Your task to perform on an android device: Go to sound settings Image 0: 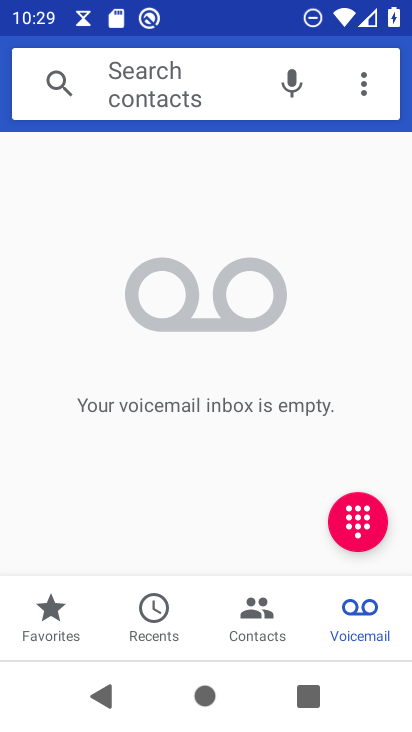
Step 0: press back button
Your task to perform on an android device: Go to sound settings Image 1: 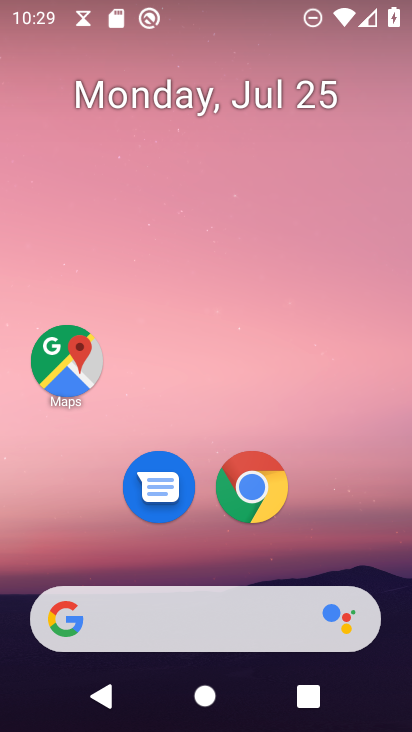
Step 1: drag from (175, 558) to (302, 11)
Your task to perform on an android device: Go to sound settings Image 2: 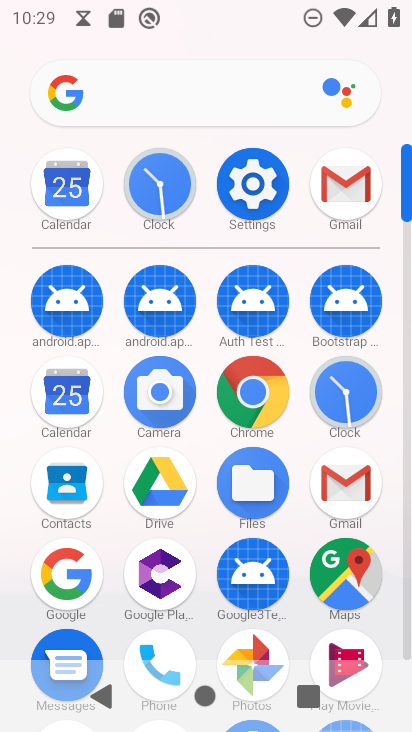
Step 2: click (243, 175)
Your task to perform on an android device: Go to sound settings Image 3: 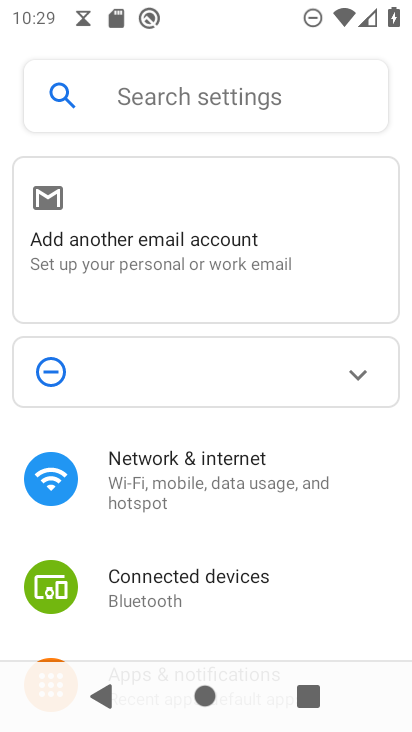
Step 3: drag from (146, 610) to (278, 26)
Your task to perform on an android device: Go to sound settings Image 4: 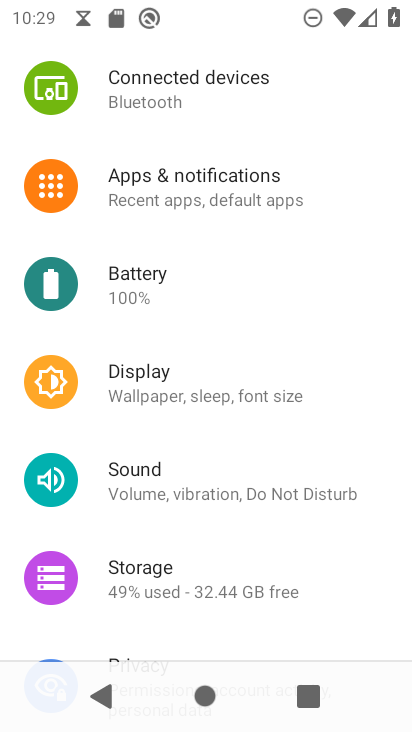
Step 4: click (141, 479)
Your task to perform on an android device: Go to sound settings Image 5: 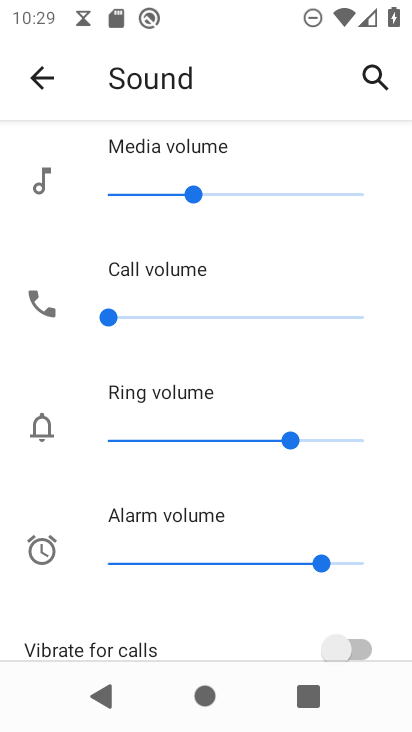
Step 5: task complete